Your task to perform on an android device: clear history in the chrome app Image 0: 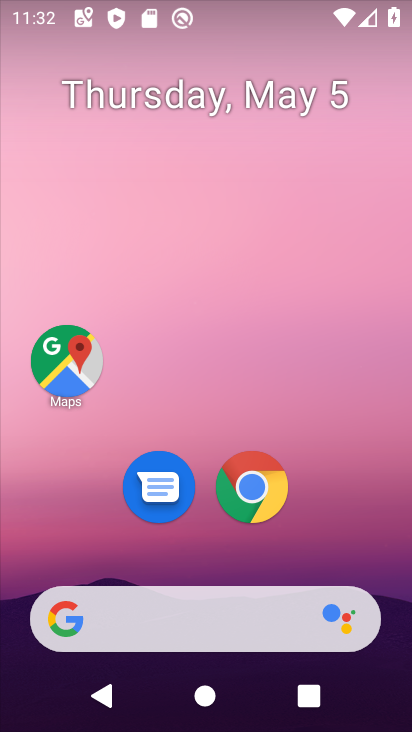
Step 0: click (256, 508)
Your task to perform on an android device: clear history in the chrome app Image 1: 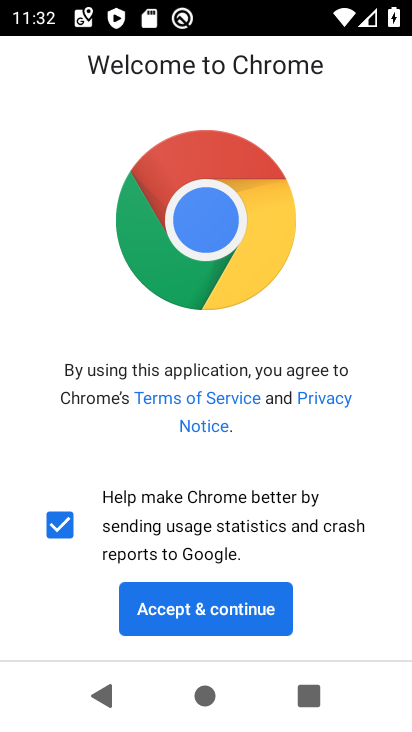
Step 1: click (185, 633)
Your task to perform on an android device: clear history in the chrome app Image 2: 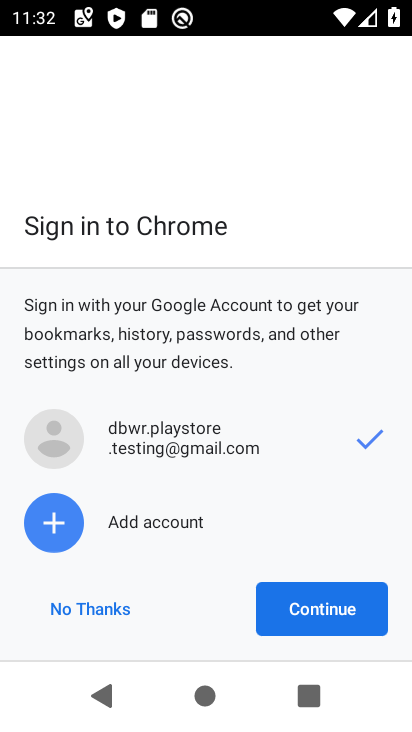
Step 2: click (313, 602)
Your task to perform on an android device: clear history in the chrome app Image 3: 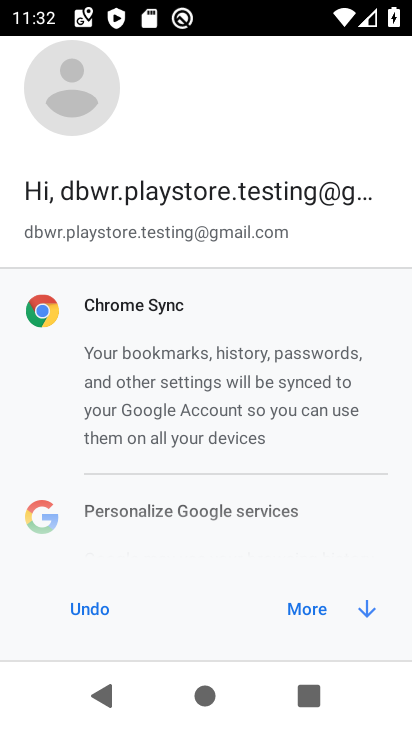
Step 3: click (319, 620)
Your task to perform on an android device: clear history in the chrome app Image 4: 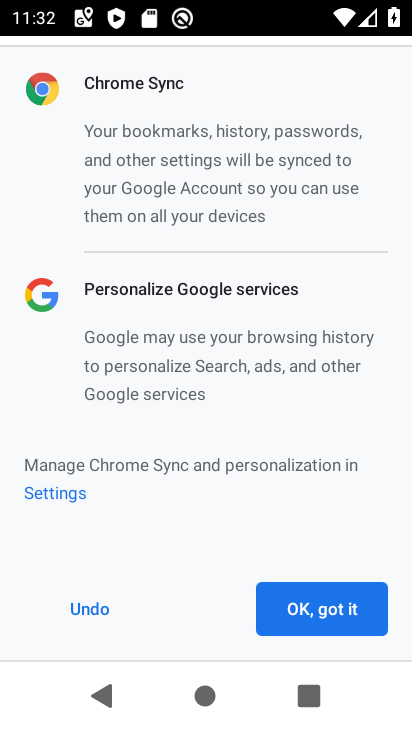
Step 4: click (319, 620)
Your task to perform on an android device: clear history in the chrome app Image 5: 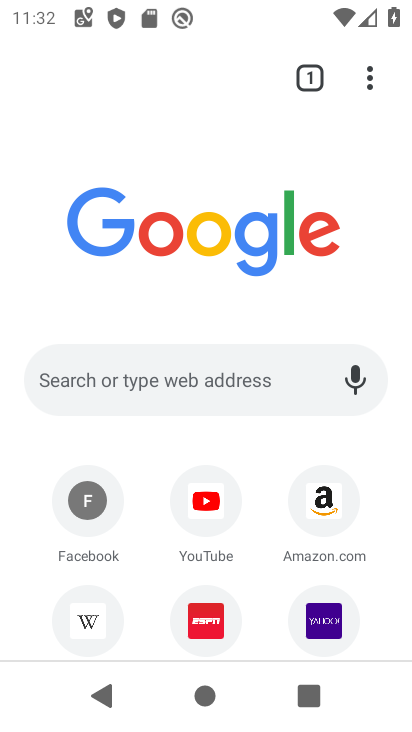
Step 5: click (384, 69)
Your task to perform on an android device: clear history in the chrome app Image 6: 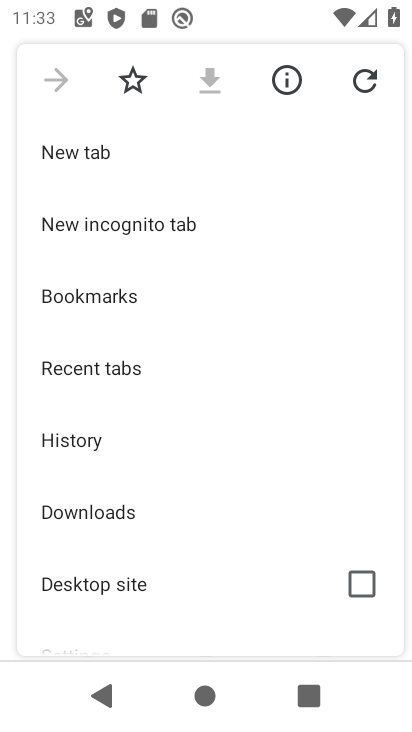
Step 6: click (143, 449)
Your task to perform on an android device: clear history in the chrome app Image 7: 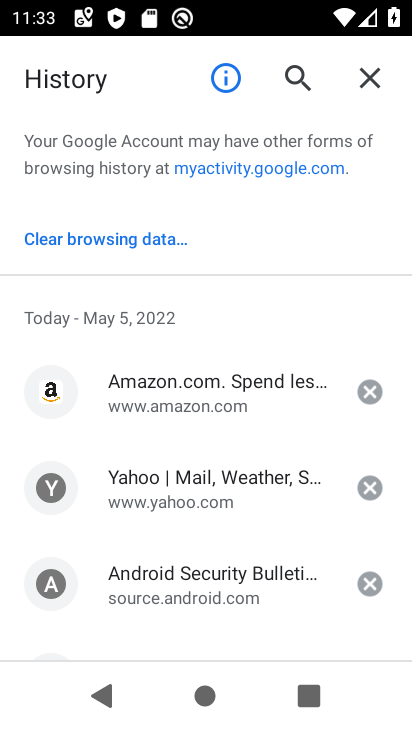
Step 7: click (155, 231)
Your task to perform on an android device: clear history in the chrome app Image 8: 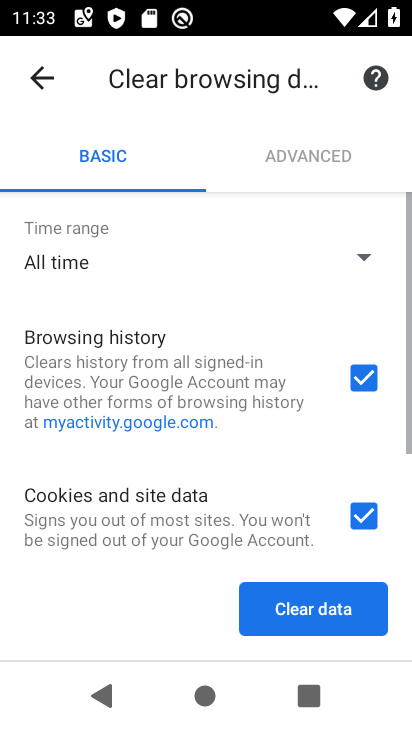
Step 8: click (297, 606)
Your task to perform on an android device: clear history in the chrome app Image 9: 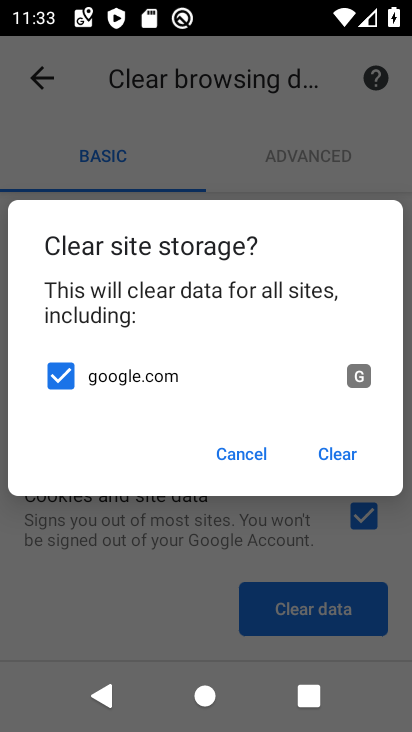
Step 9: click (317, 457)
Your task to perform on an android device: clear history in the chrome app Image 10: 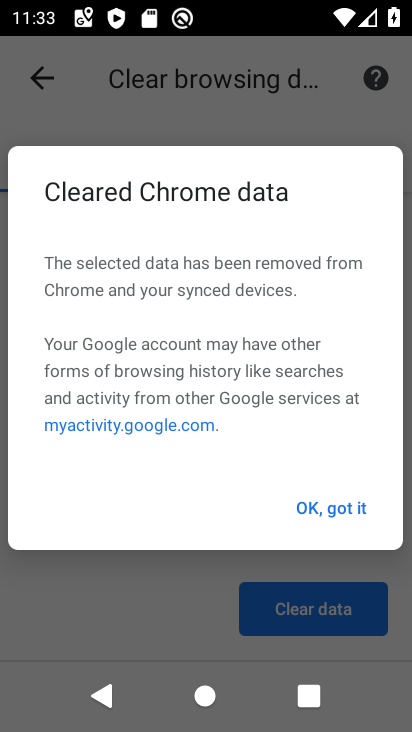
Step 10: task complete